Your task to perform on an android device: Is it going to rain this weekend? Image 0: 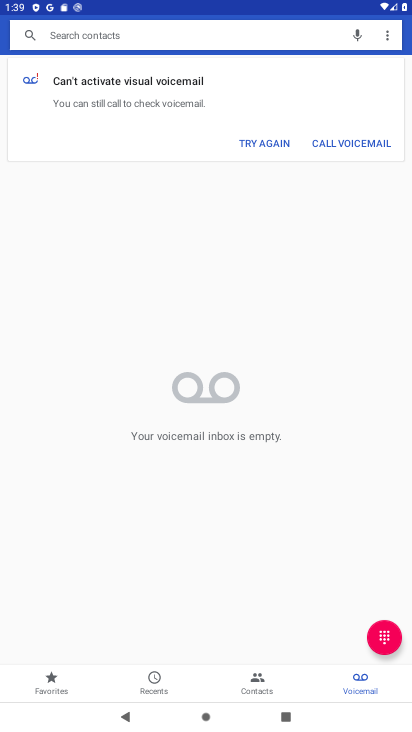
Step 0: press home button
Your task to perform on an android device: Is it going to rain this weekend? Image 1: 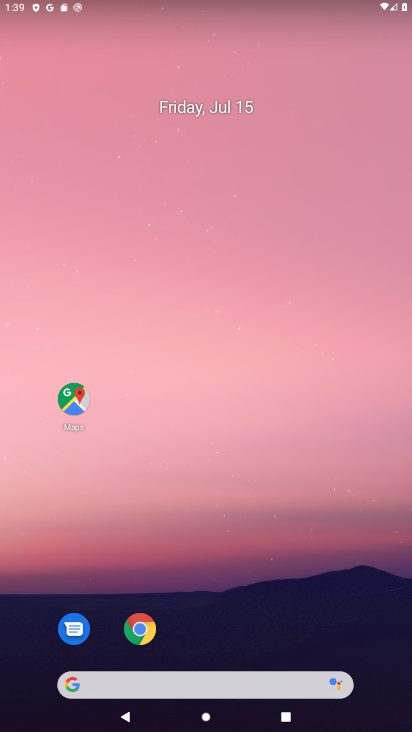
Step 1: drag from (217, 534) to (215, 141)
Your task to perform on an android device: Is it going to rain this weekend? Image 2: 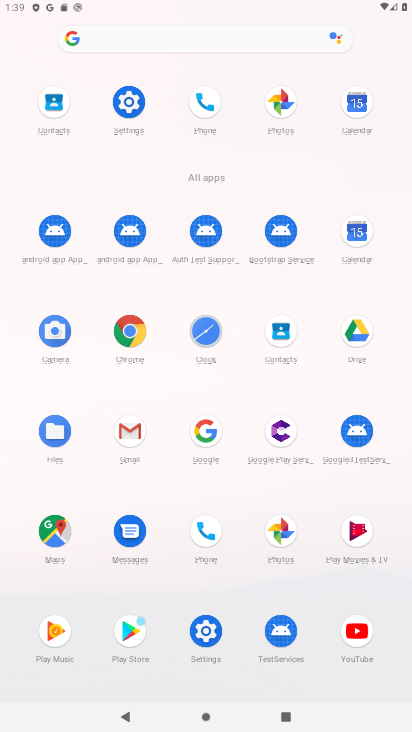
Step 2: click (206, 446)
Your task to perform on an android device: Is it going to rain this weekend? Image 3: 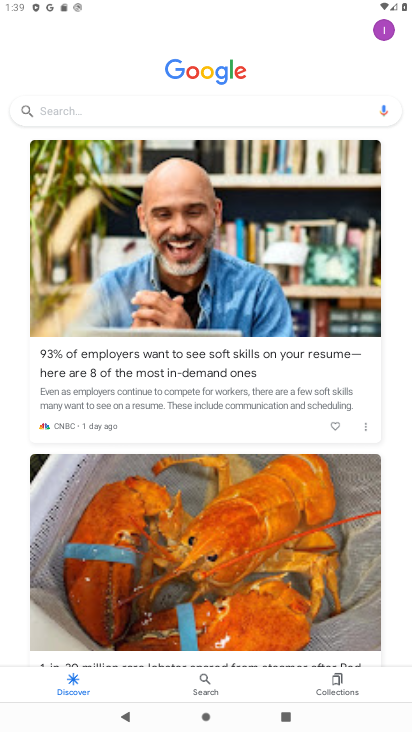
Step 3: click (51, 109)
Your task to perform on an android device: Is it going to rain this weekend? Image 4: 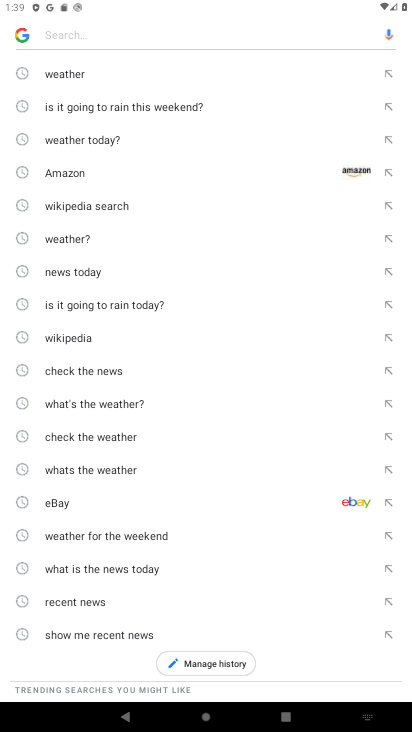
Step 4: click (68, 77)
Your task to perform on an android device: Is it going to rain this weekend? Image 5: 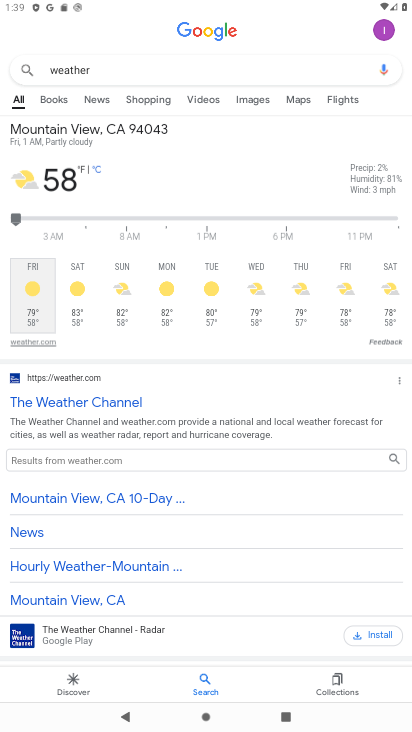
Step 5: click (22, 340)
Your task to perform on an android device: Is it going to rain this weekend? Image 6: 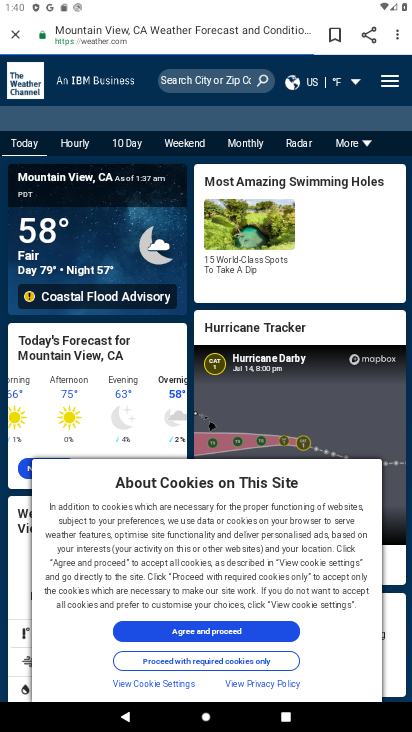
Step 6: click (170, 144)
Your task to perform on an android device: Is it going to rain this weekend? Image 7: 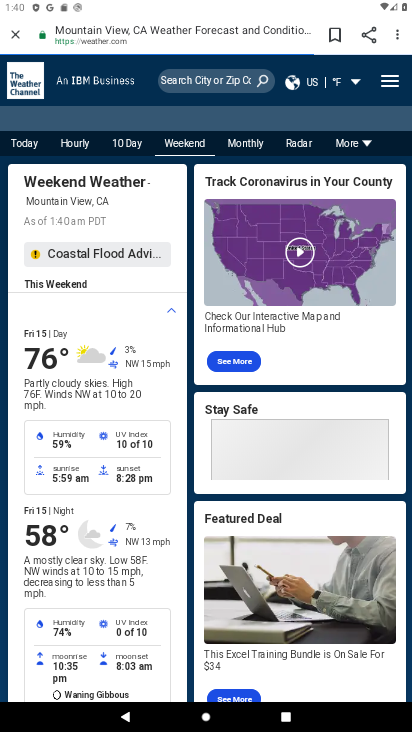
Step 7: task complete